Your task to perform on an android device: Open internet settings Image 0: 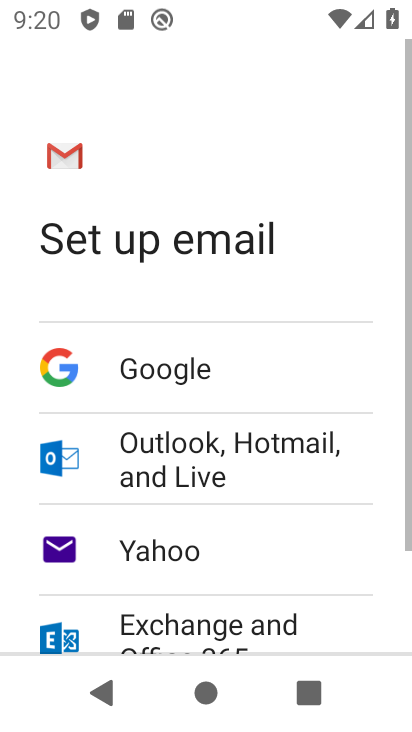
Step 0: press home button
Your task to perform on an android device: Open internet settings Image 1: 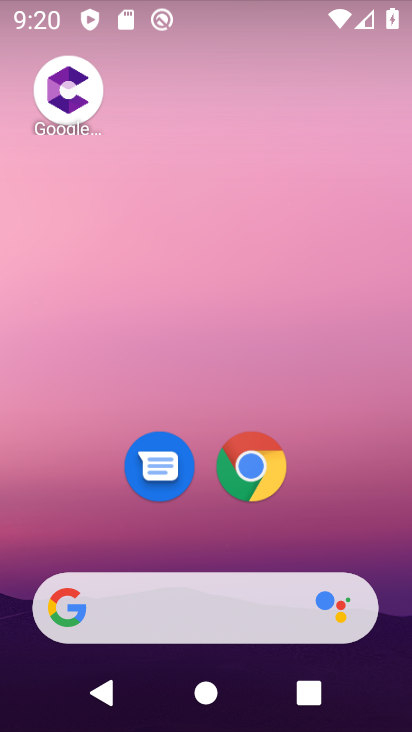
Step 1: drag from (272, 569) to (196, 70)
Your task to perform on an android device: Open internet settings Image 2: 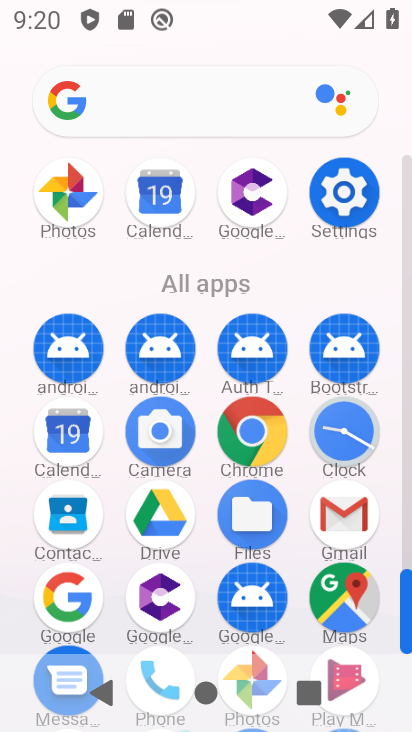
Step 2: click (339, 517)
Your task to perform on an android device: Open internet settings Image 3: 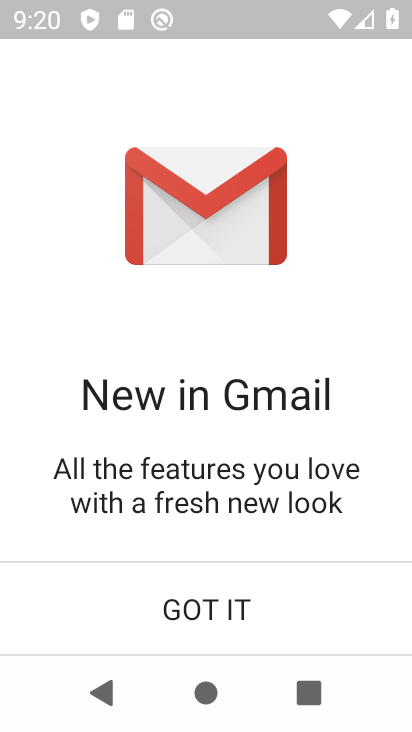
Step 3: click (279, 616)
Your task to perform on an android device: Open internet settings Image 4: 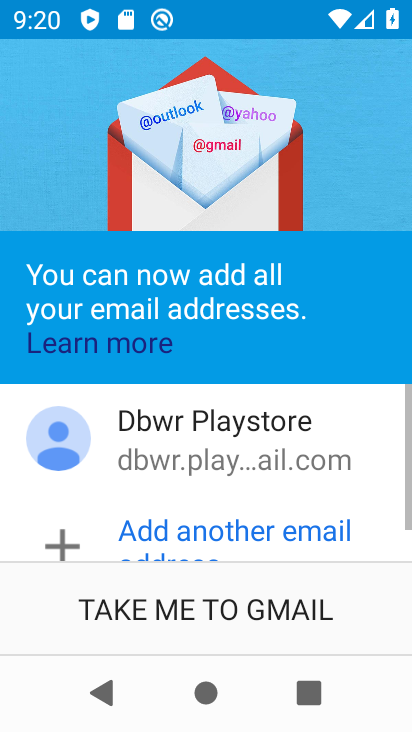
Step 4: click (299, 617)
Your task to perform on an android device: Open internet settings Image 5: 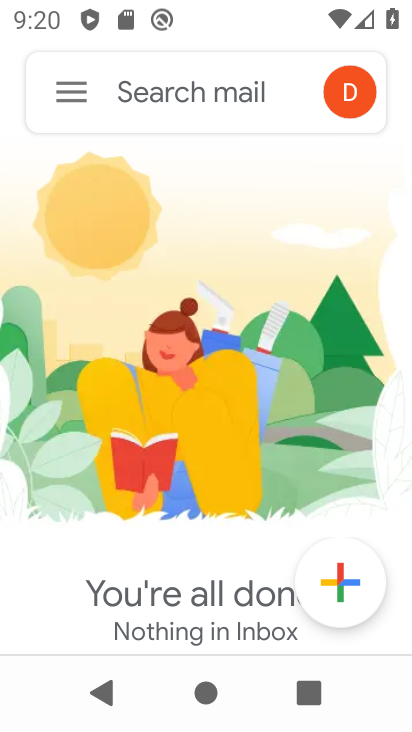
Step 5: press home button
Your task to perform on an android device: Open internet settings Image 6: 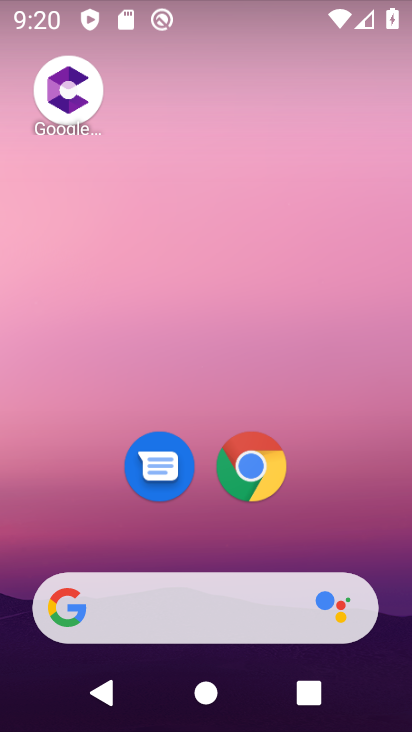
Step 6: drag from (160, 639) to (174, 4)
Your task to perform on an android device: Open internet settings Image 7: 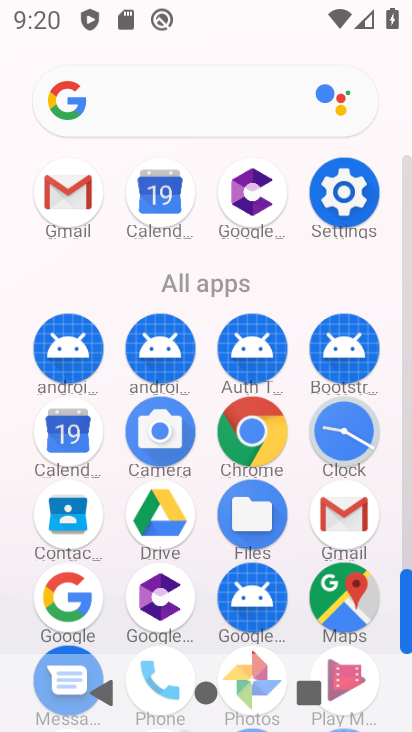
Step 7: click (348, 187)
Your task to perform on an android device: Open internet settings Image 8: 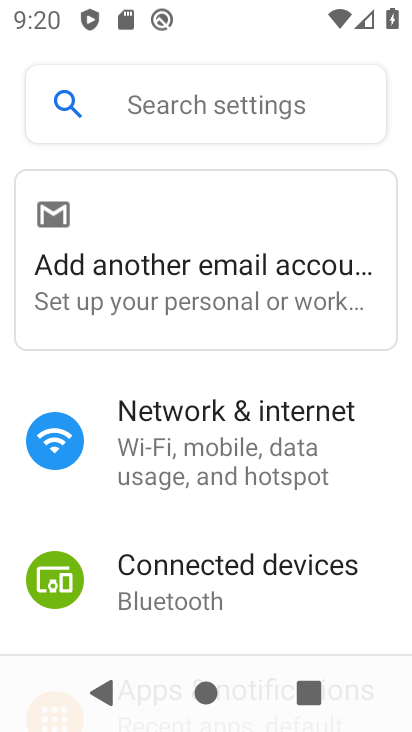
Step 8: click (165, 424)
Your task to perform on an android device: Open internet settings Image 9: 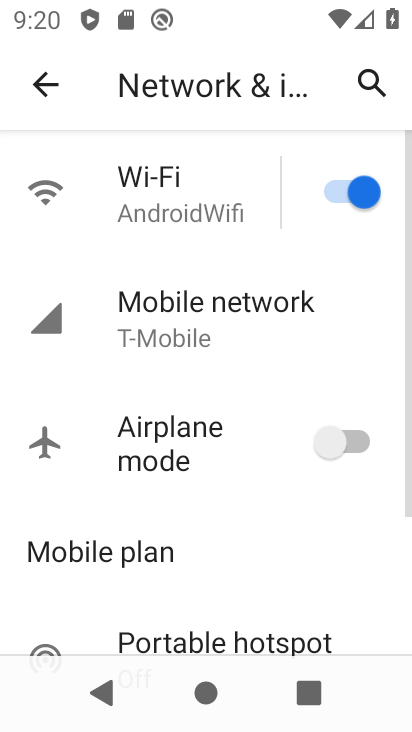
Step 9: task complete